Your task to perform on an android device: turn on wifi Image 0: 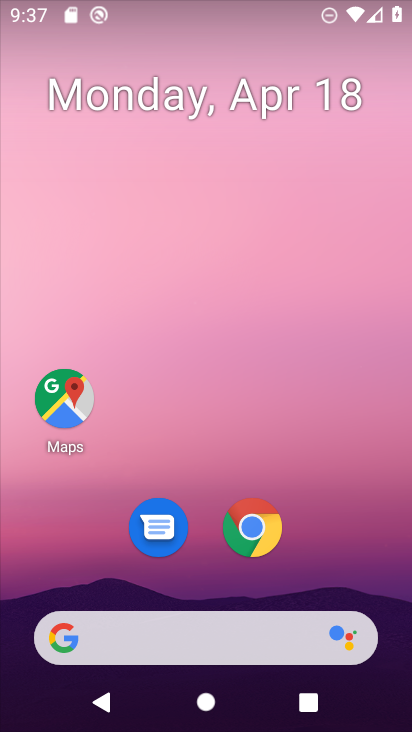
Step 0: drag from (323, 550) to (190, 35)
Your task to perform on an android device: turn on wifi Image 1: 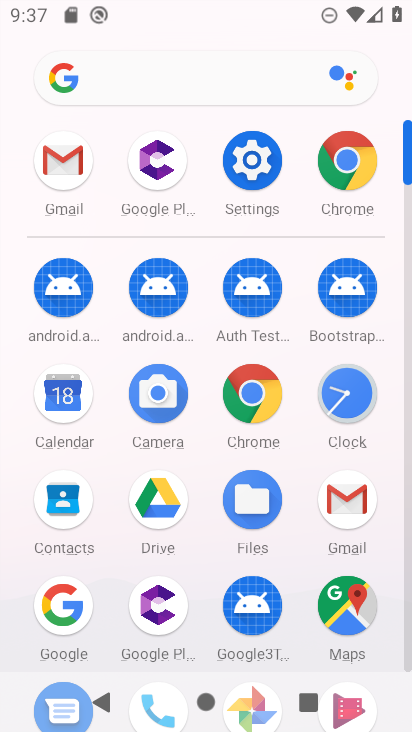
Step 1: click (252, 155)
Your task to perform on an android device: turn on wifi Image 2: 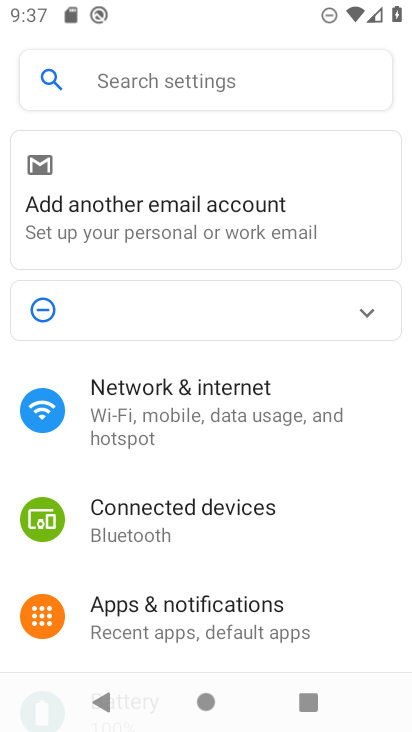
Step 2: click (252, 388)
Your task to perform on an android device: turn on wifi Image 3: 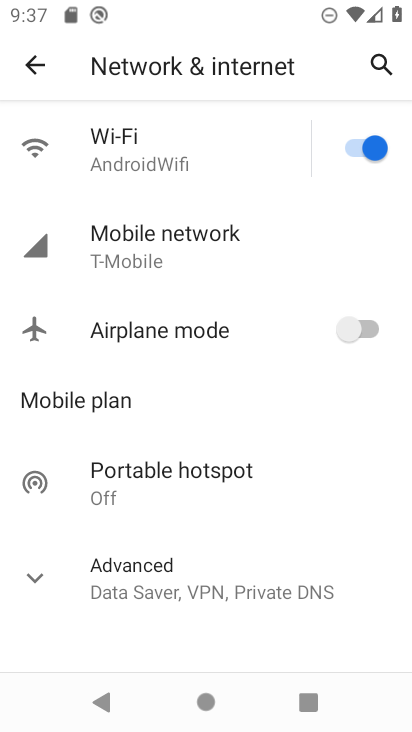
Step 3: task complete